Your task to perform on an android device: turn on location history Image 0: 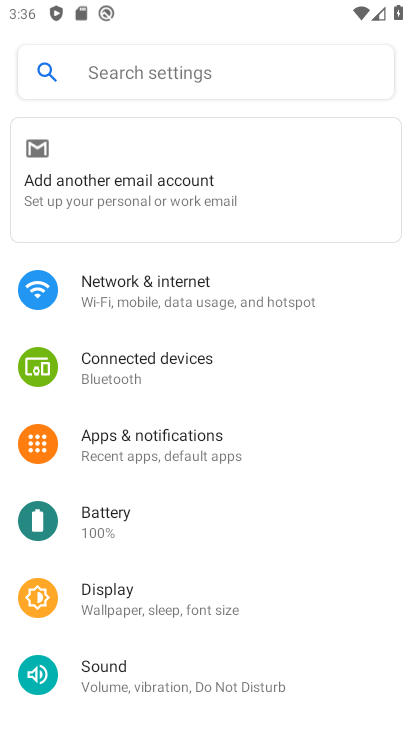
Step 0: drag from (83, 597) to (127, 238)
Your task to perform on an android device: turn on location history Image 1: 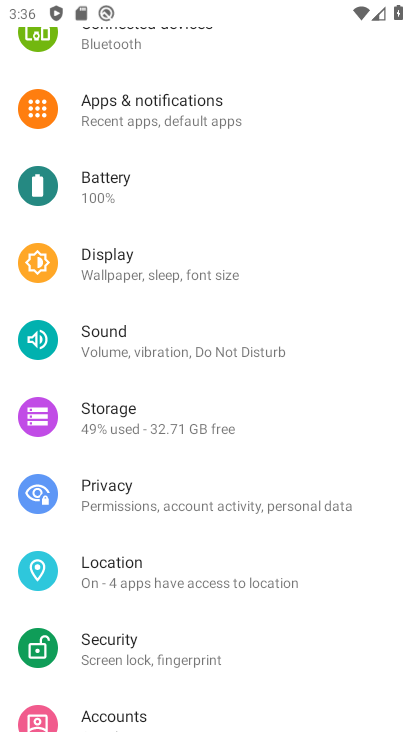
Step 1: drag from (174, 595) to (193, 343)
Your task to perform on an android device: turn on location history Image 2: 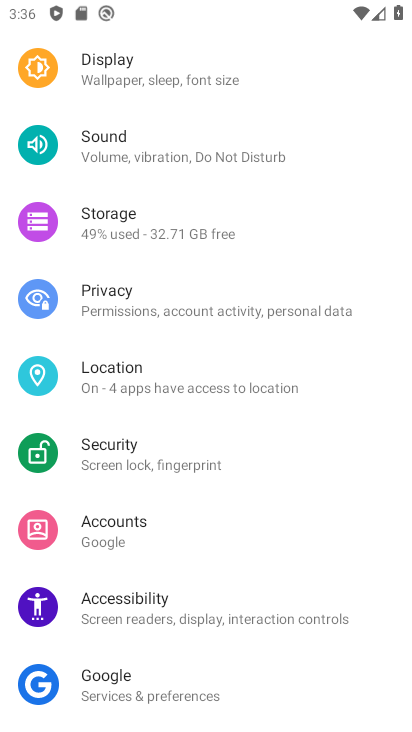
Step 2: click (145, 386)
Your task to perform on an android device: turn on location history Image 3: 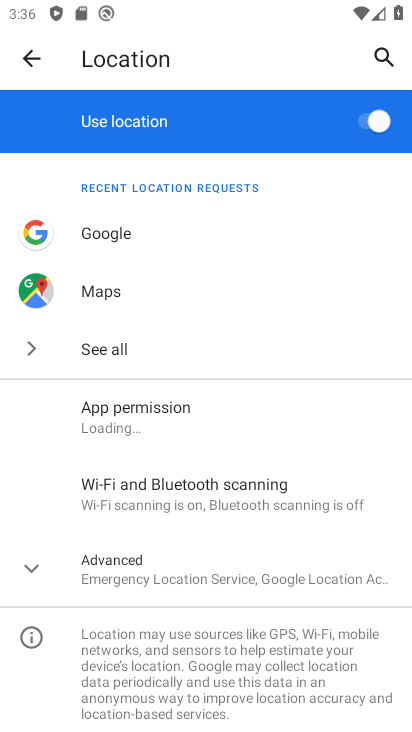
Step 3: click (168, 579)
Your task to perform on an android device: turn on location history Image 4: 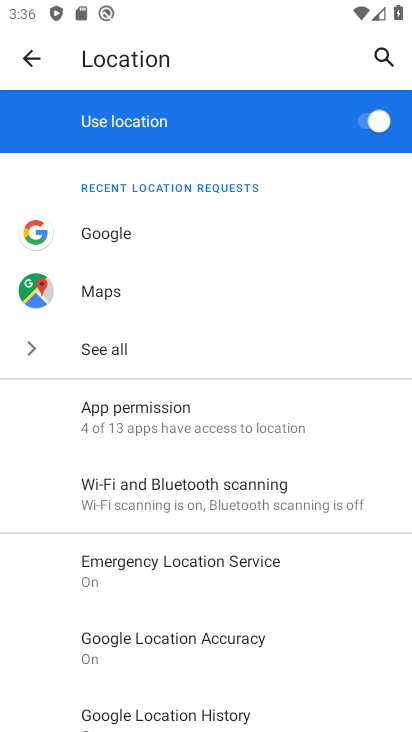
Step 4: drag from (230, 658) to (252, 430)
Your task to perform on an android device: turn on location history Image 5: 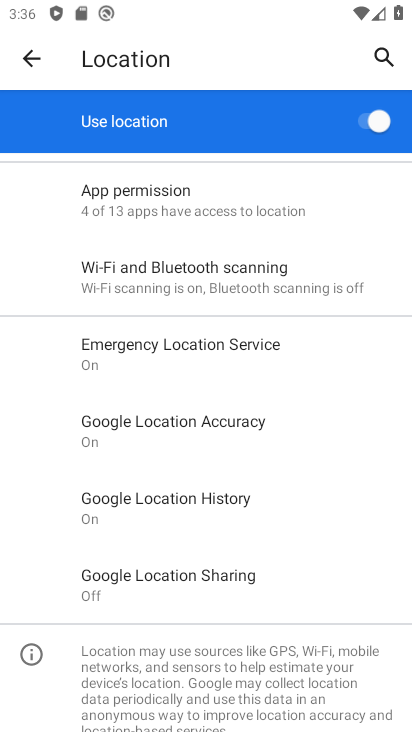
Step 5: click (192, 515)
Your task to perform on an android device: turn on location history Image 6: 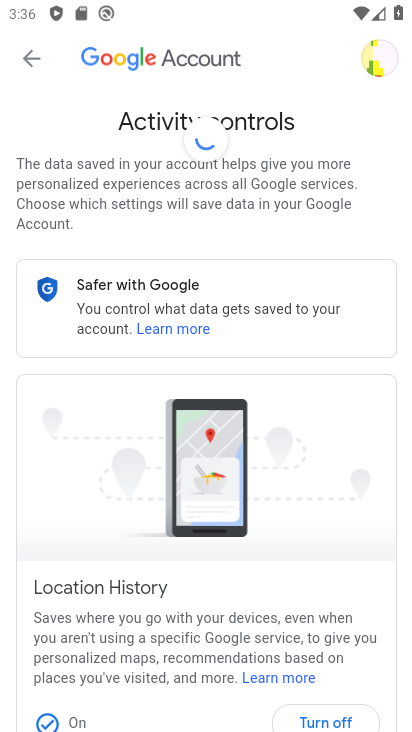
Step 6: task complete